Your task to perform on an android device: turn off improve location accuracy Image 0: 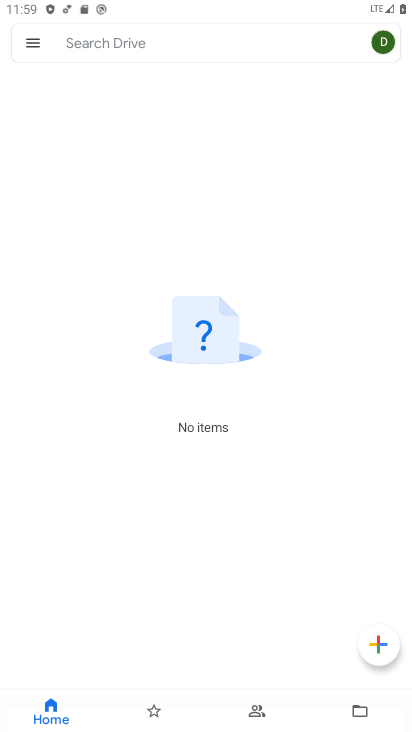
Step 0: press home button
Your task to perform on an android device: turn off improve location accuracy Image 1: 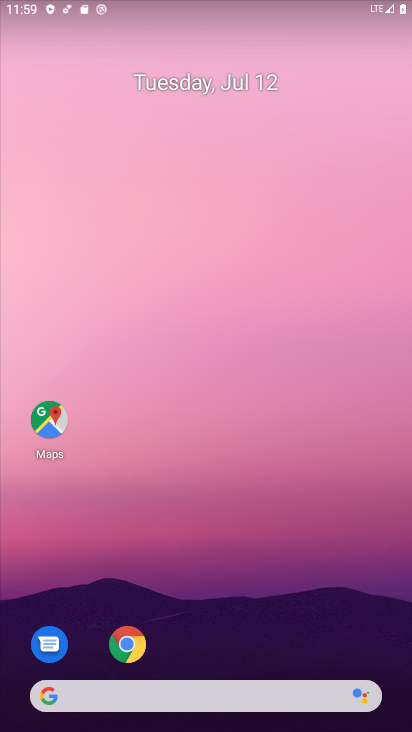
Step 1: drag from (256, 641) to (273, 103)
Your task to perform on an android device: turn off improve location accuracy Image 2: 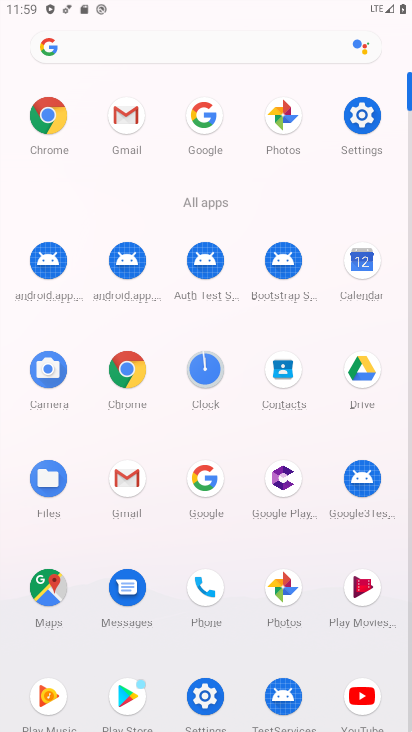
Step 2: click (200, 697)
Your task to perform on an android device: turn off improve location accuracy Image 3: 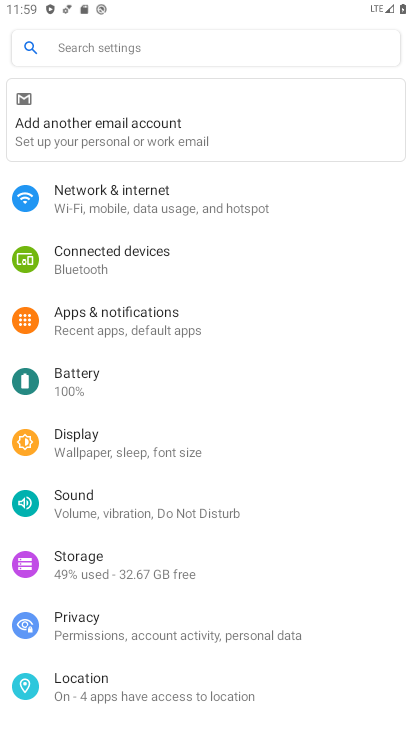
Step 3: click (119, 678)
Your task to perform on an android device: turn off improve location accuracy Image 4: 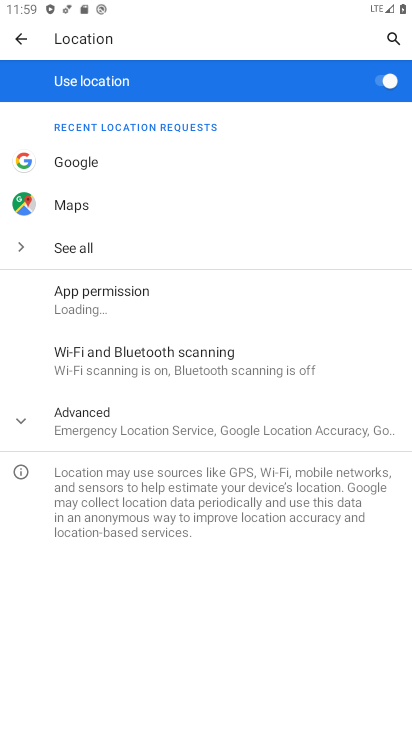
Step 4: click (103, 419)
Your task to perform on an android device: turn off improve location accuracy Image 5: 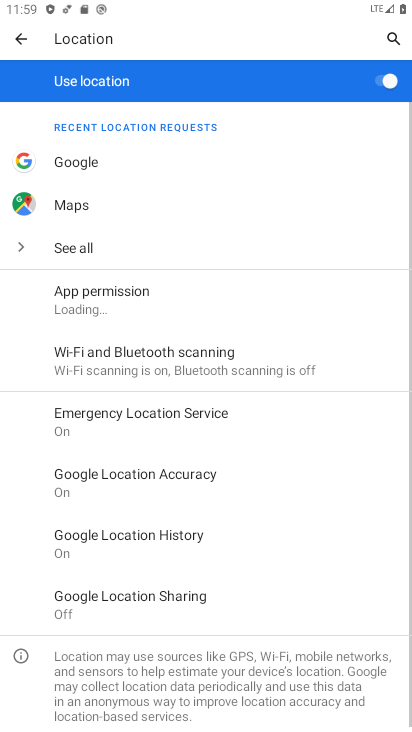
Step 5: click (170, 482)
Your task to perform on an android device: turn off improve location accuracy Image 6: 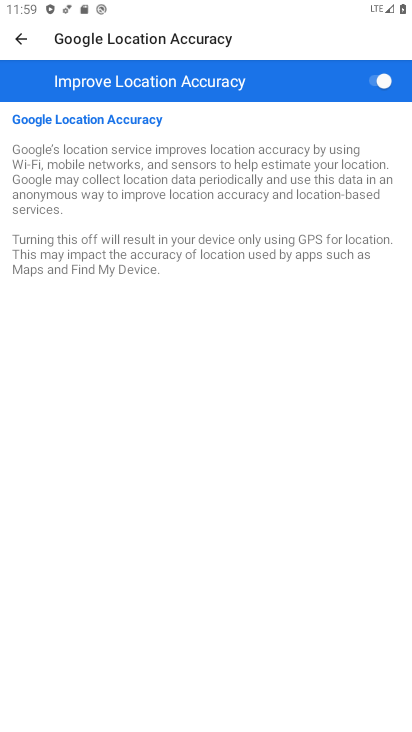
Step 6: click (370, 89)
Your task to perform on an android device: turn off improve location accuracy Image 7: 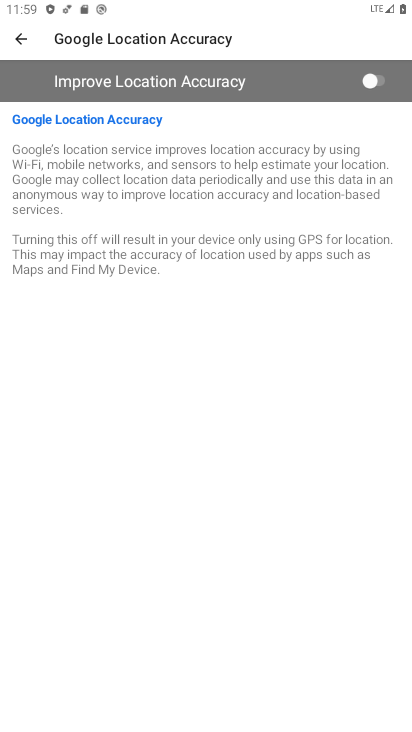
Step 7: task complete